Your task to perform on an android device: delete browsing data in the chrome app Image 0: 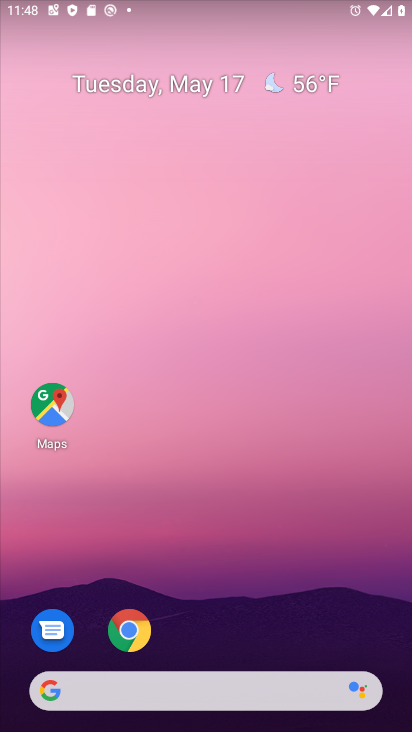
Step 0: drag from (342, 584) to (327, 137)
Your task to perform on an android device: delete browsing data in the chrome app Image 1: 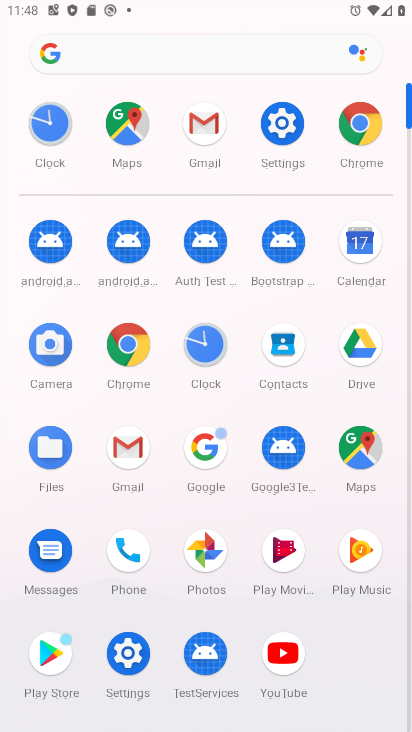
Step 1: click (125, 353)
Your task to perform on an android device: delete browsing data in the chrome app Image 2: 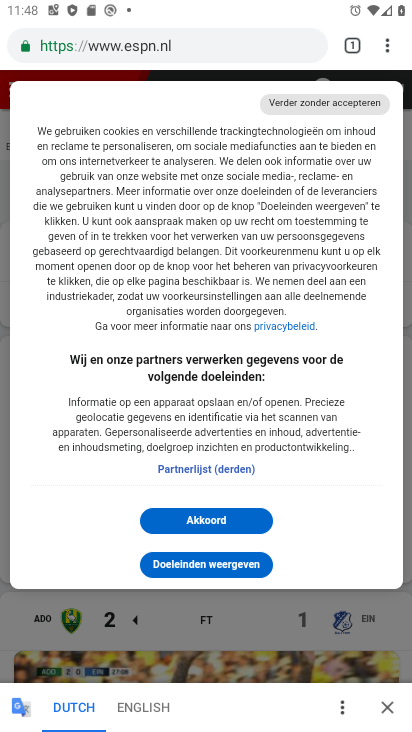
Step 2: drag from (386, 45) to (274, 255)
Your task to perform on an android device: delete browsing data in the chrome app Image 3: 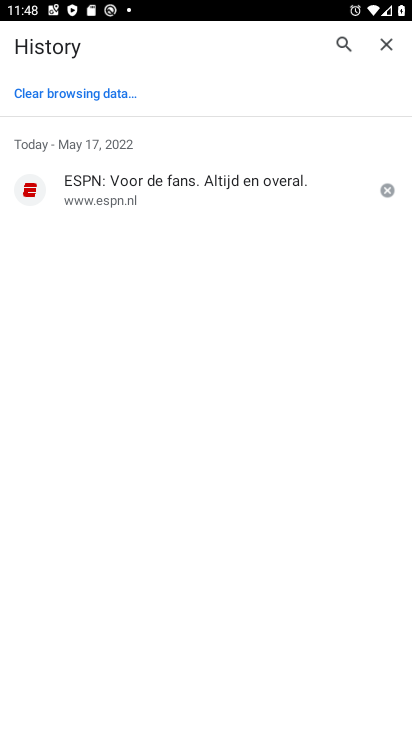
Step 3: click (130, 88)
Your task to perform on an android device: delete browsing data in the chrome app Image 4: 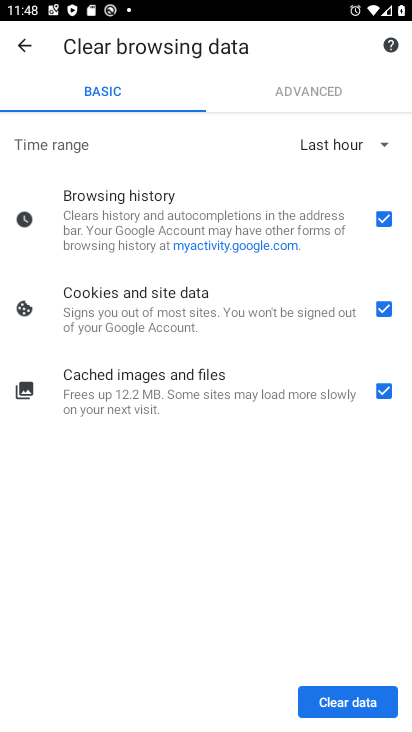
Step 4: click (374, 699)
Your task to perform on an android device: delete browsing data in the chrome app Image 5: 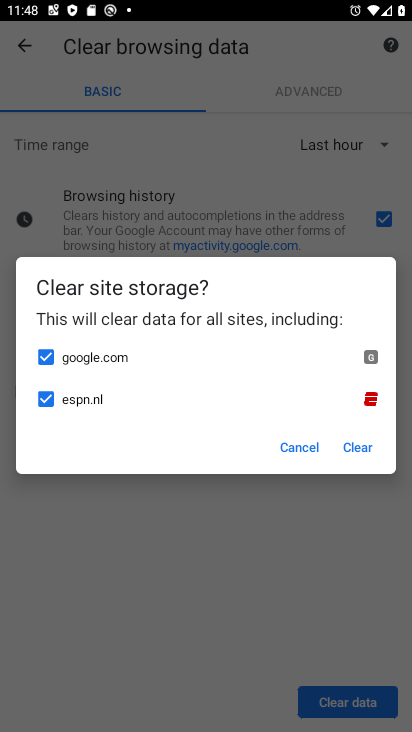
Step 5: click (355, 439)
Your task to perform on an android device: delete browsing data in the chrome app Image 6: 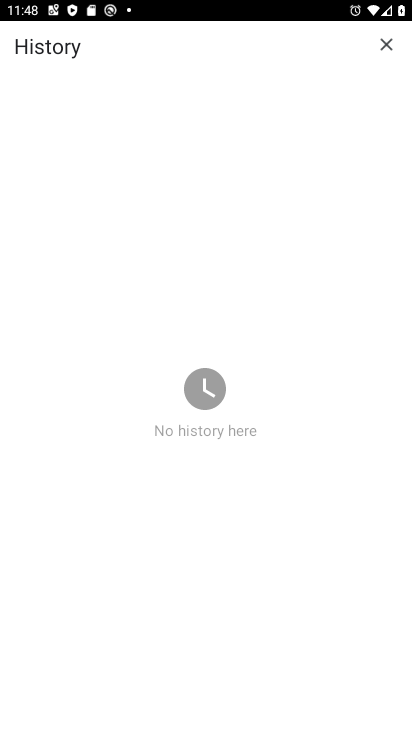
Step 6: task complete